Your task to perform on an android device: Open the calendar app, open the side menu, and click the "Day" option Image 0: 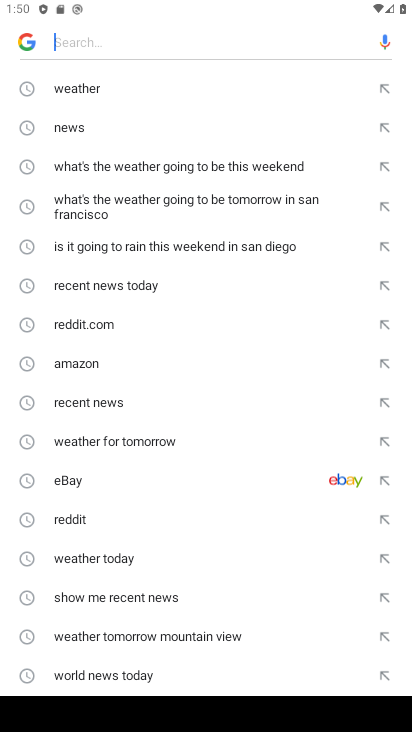
Step 0: press back button
Your task to perform on an android device: Open the calendar app, open the side menu, and click the "Day" option Image 1: 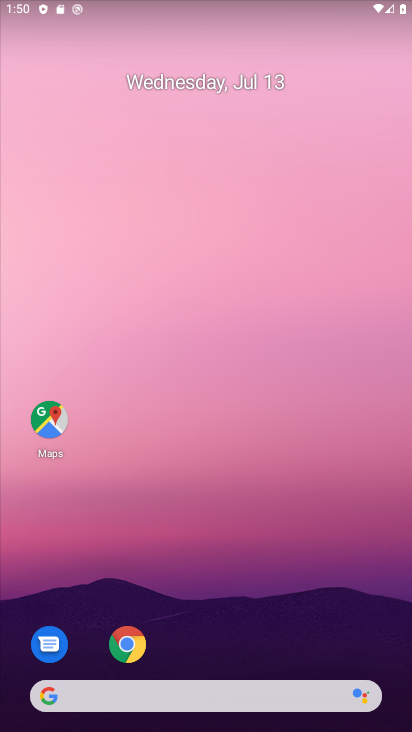
Step 1: drag from (239, 598) to (264, 0)
Your task to perform on an android device: Open the calendar app, open the side menu, and click the "Day" option Image 2: 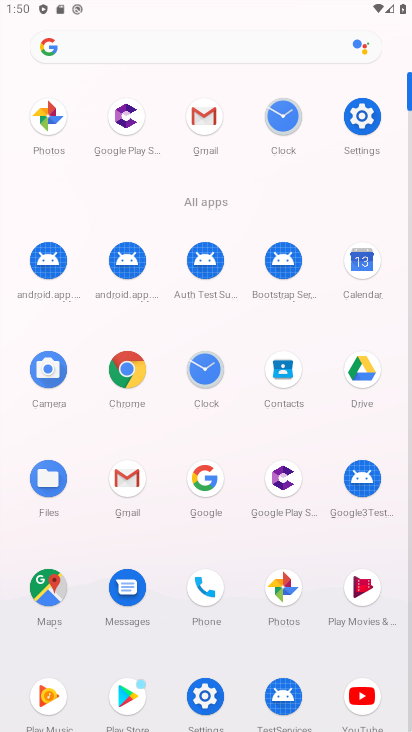
Step 2: click (357, 264)
Your task to perform on an android device: Open the calendar app, open the side menu, and click the "Day" option Image 3: 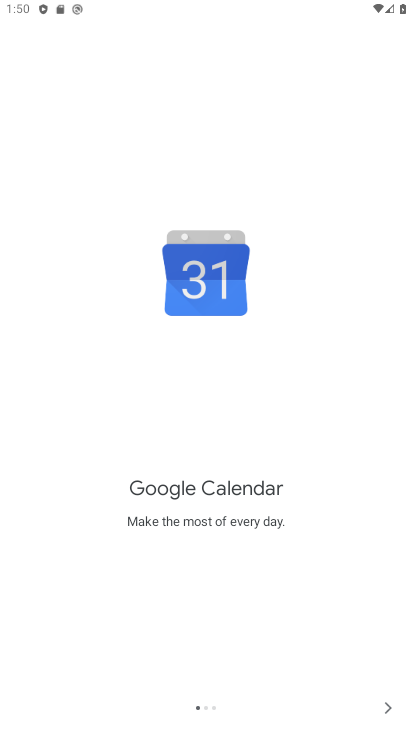
Step 3: click (371, 709)
Your task to perform on an android device: Open the calendar app, open the side menu, and click the "Day" option Image 4: 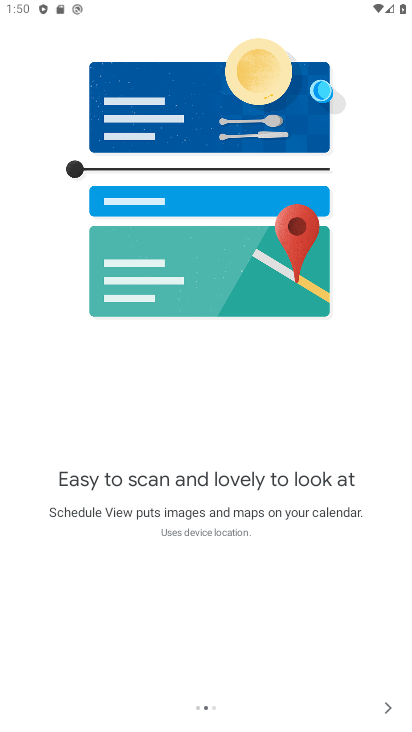
Step 4: click (375, 708)
Your task to perform on an android device: Open the calendar app, open the side menu, and click the "Day" option Image 5: 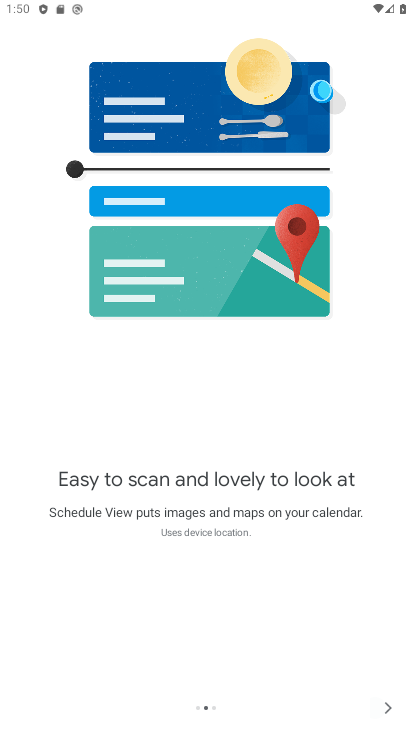
Step 5: click (375, 708)
Your task to perform on an android device: Open the calendar app, open the side menu, and click the "Day" option Image 6: 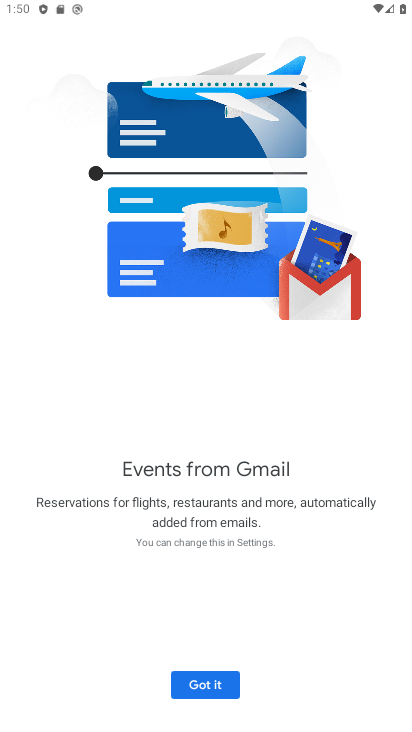
Step 6: click (375, 708)
Your task to perform on an android device: Open the calendar app, open the side menu, and click the "Day" option Image 7: 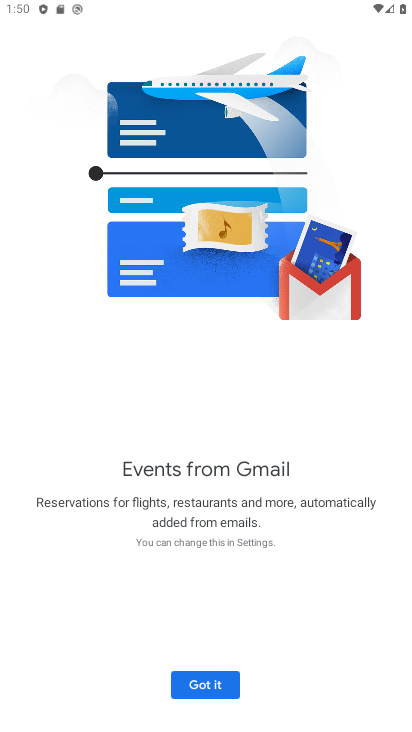
Step 7: click (202, 690)
Your task to perform on an android device: Open the calendar app, open the side menu, and click the "Day" option Image 8: 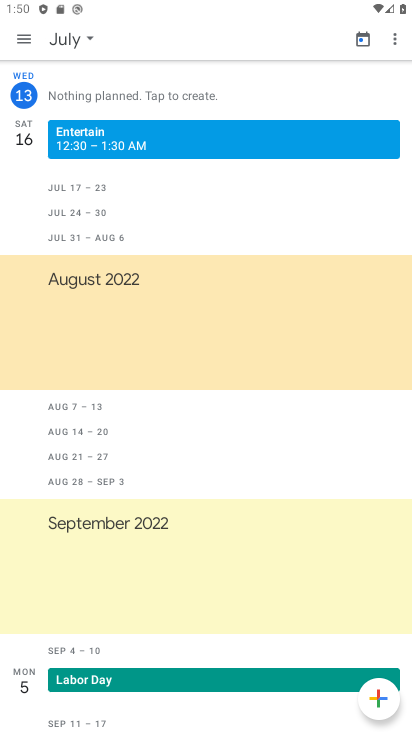
Step 8: click (11, 32)
Your task to perform on an android device: Open the calendar app, open the side menu, and click the "Day" option Image 9: 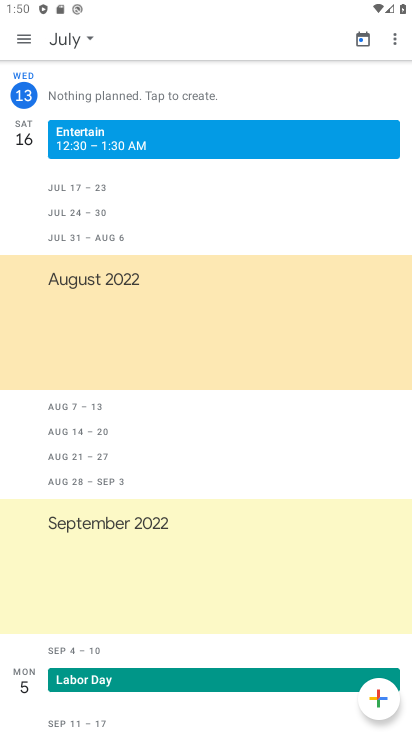
Step 9: click (29, 32)
Your task to perform on an android device: Open the calendar app, open the side menu, and click the "Day" option Image 10: 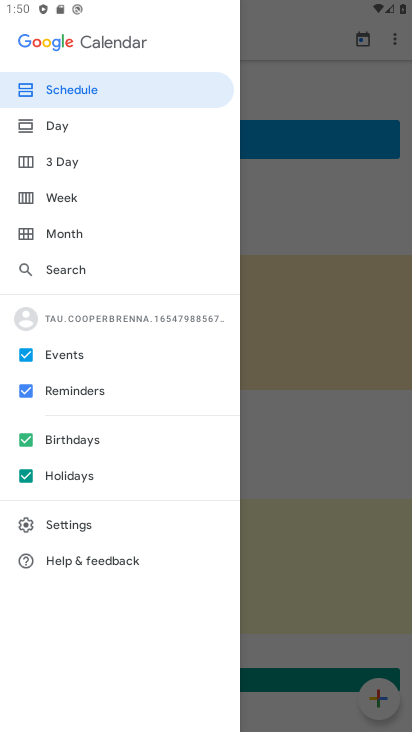
Step 10: click (81, 131)
Your task to perform on an android device: Open the calendar app, open the side menu, and click the "Day" option Image 11: 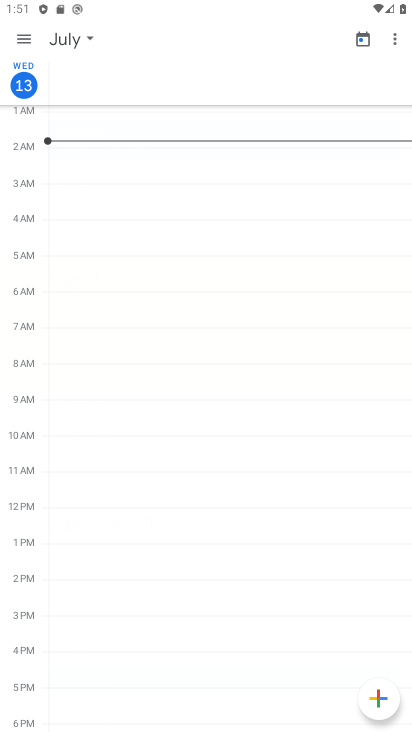
Step 11: task complete